Your task to perform on an android device: Go to wifi settings Image 0: 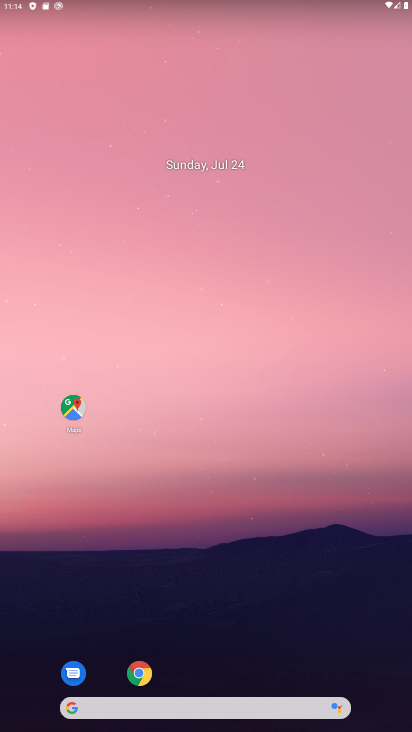
Step 0: drag from (328, 649) to (261, 39)
Your task to perform on an android device: Go to wifi settings Image 1: 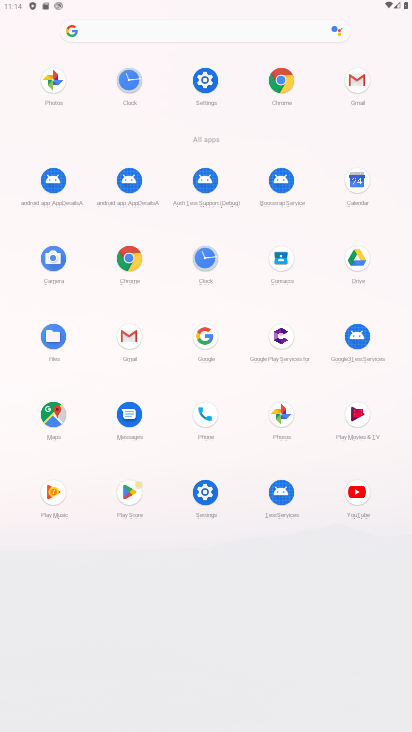
Step 1: click (199, 78)
Your task to perform on an android device: Go to wifi settings Image 2: 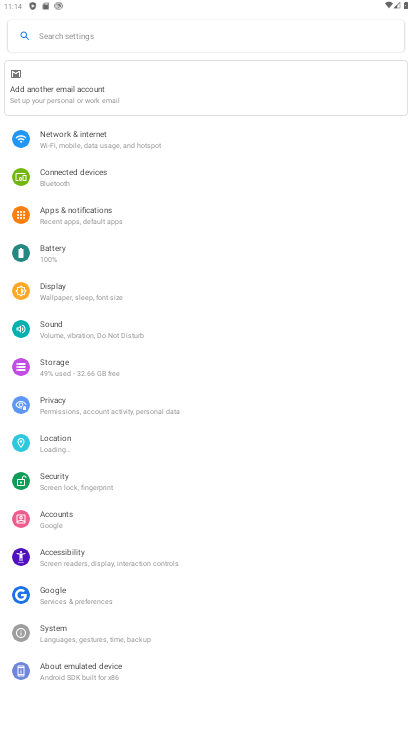
Step 2: click (94, 149)
Your task to perform on an android device: Go to wifi settings Image 3: 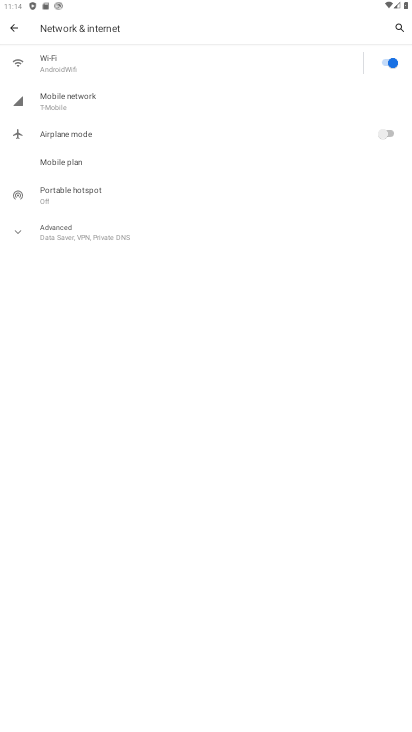
Step 3: click (77, 70)
Your task to perform on an android device: Go to wifi settings Image 4: 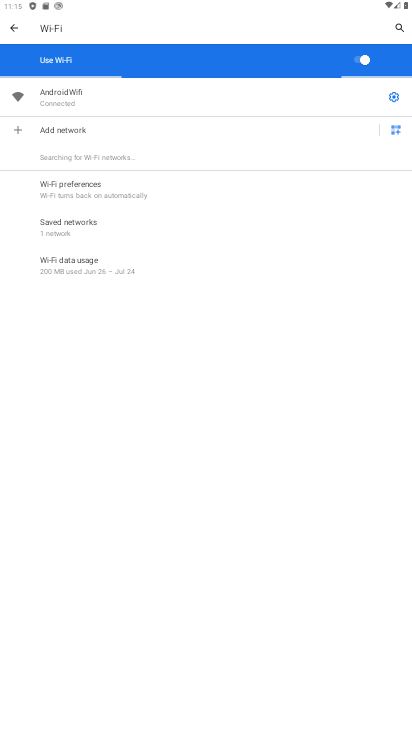
Step 4: click (394, 90)
Your task to perform on an android device: Go to wifi settings Image 5: 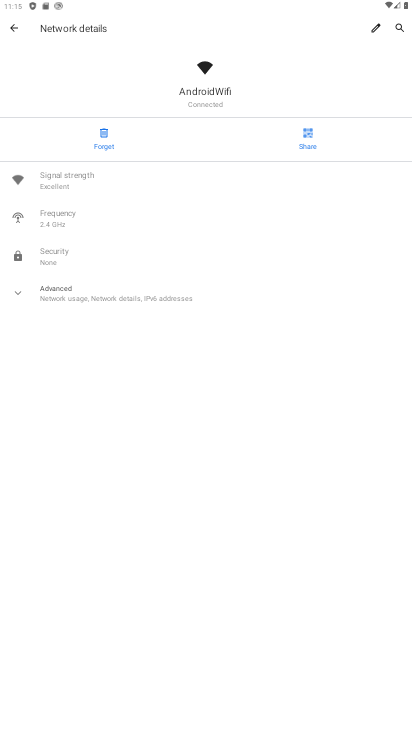
Step 5: task complete